Your task to perform on an android device: change the clock display to show seconds Image 0: 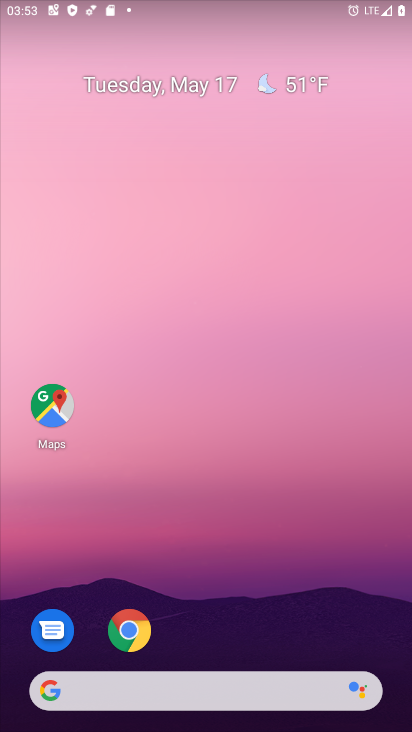
Step 0: drag from (203, 495) to (210, 131)
Your task to perform on an android device: change the clock display to show seconds Image 1: 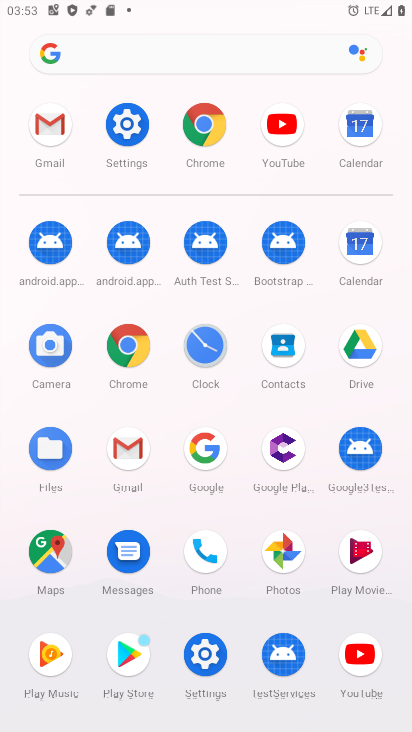
Step 1: click (206, 344)
Your task to perform on an android device: change the clock display to show seconds Image 2: 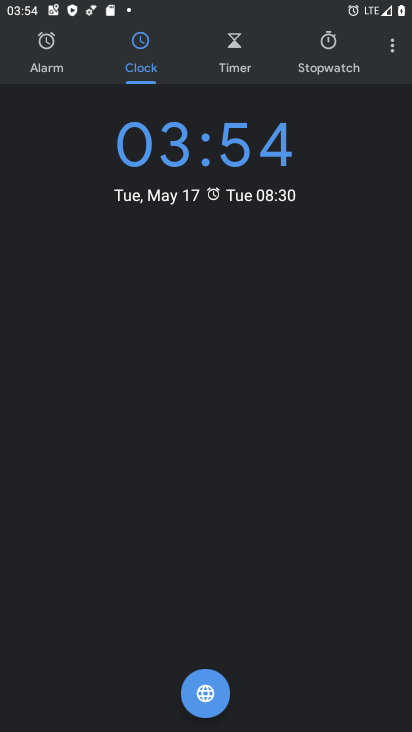
Step 2: drag from (390, 42) to (348, 155)
Your task to perform on an android device: change the clock display to show seconds Image 3: 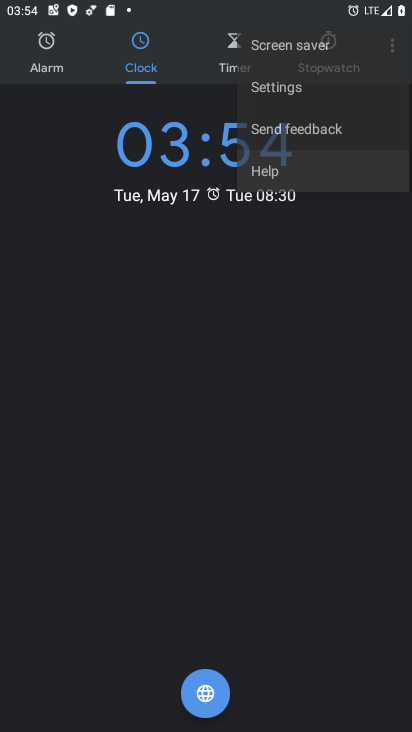
Step 3: click (386, 45)
Your task to perform on an android device: change the clock display to show seconds Image 4: 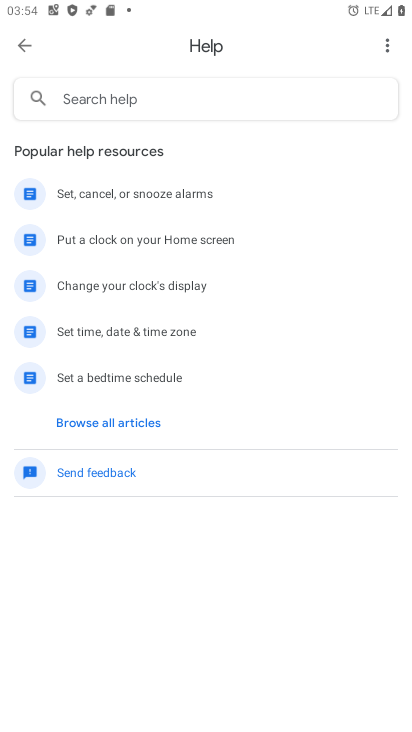
Step 4: press back button
Your task to perform on an android device: change the clock display to show seconds Image 5: 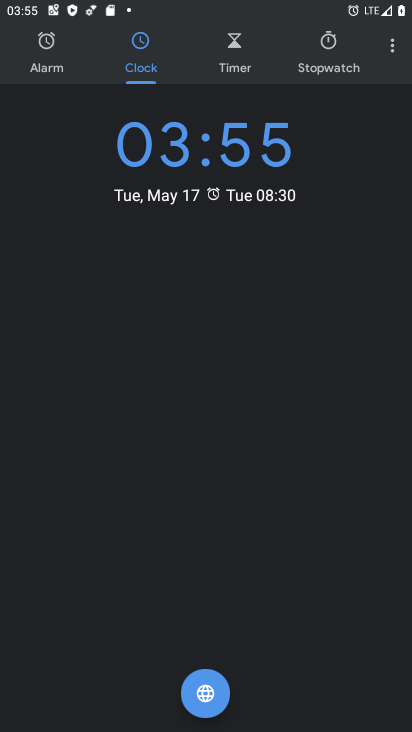
Step 5: click (386, 47)
Your task to perform on an android device: change the clock display to show seconds Image 6: 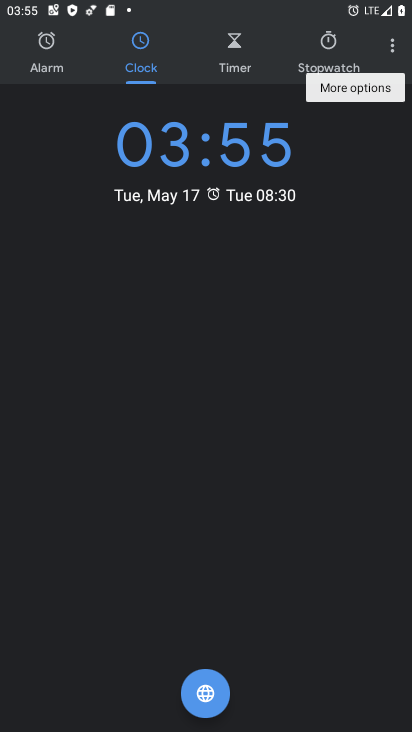
Step 6: click (388, 45)
Your task to perform on an android device: change the clock display to show seconds Image 7: 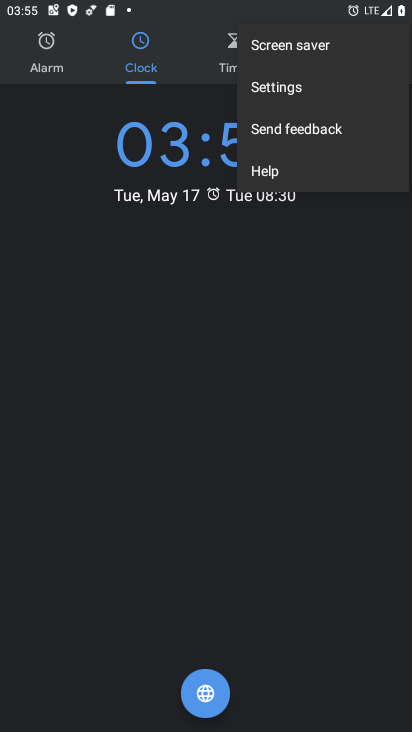
Step 7: click (283, 92)
Your task to perform on an android device: change the clock display to show seconds Image 8: 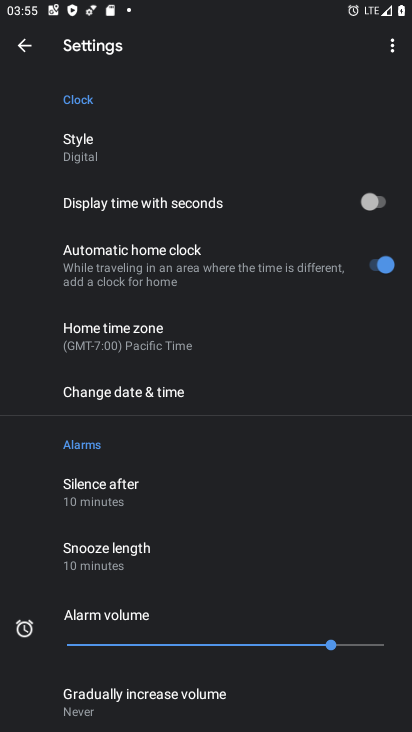
Step 8: click (368, 199)
Your task to perform on an android device: change the clock display to show seconds Image 9: 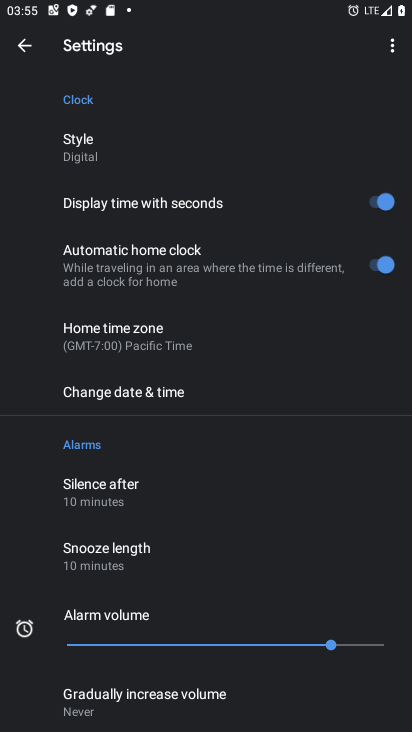
Step 9: task complete